Your task to perform on an android device: toggle notification dots Image 0: 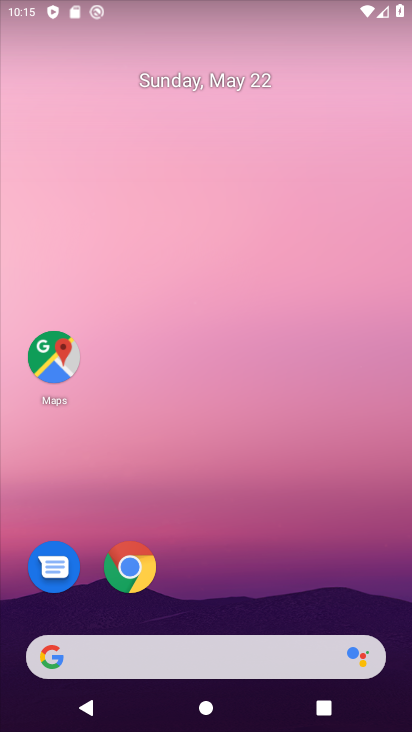
Step 0: drag from (399, 626) to (332, 48)
Your task to perform on an android device: toggle notification dots Image 1: 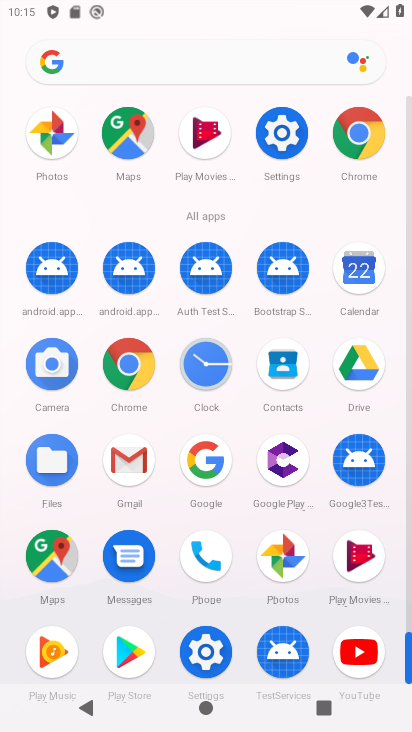
Step 1: click (204, 651)
Your task to perform on an android device: toggle notification dots Image 2: 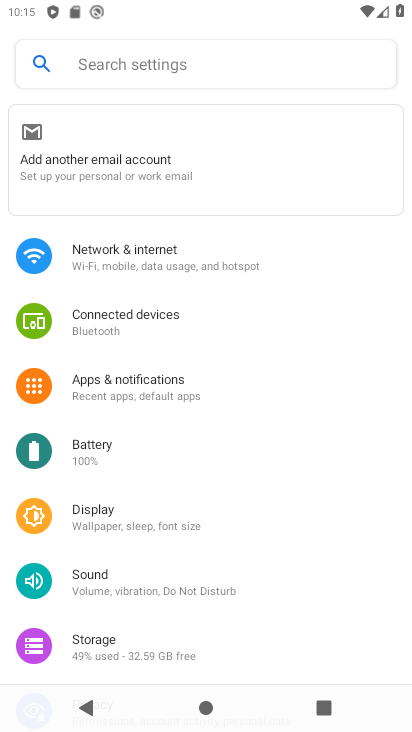
Step 2: click (132, 379)
Your task to perform on an android device: toggle notification dots Image 3: 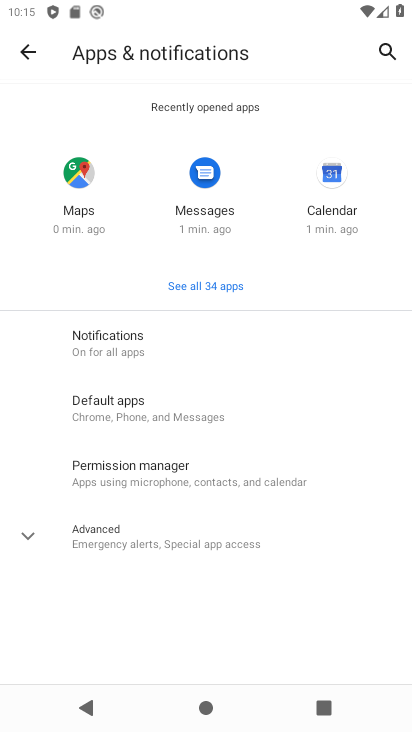
Step 3: click (28, 539)
Your task to perform on an android device: toggle notification dots Image 4: 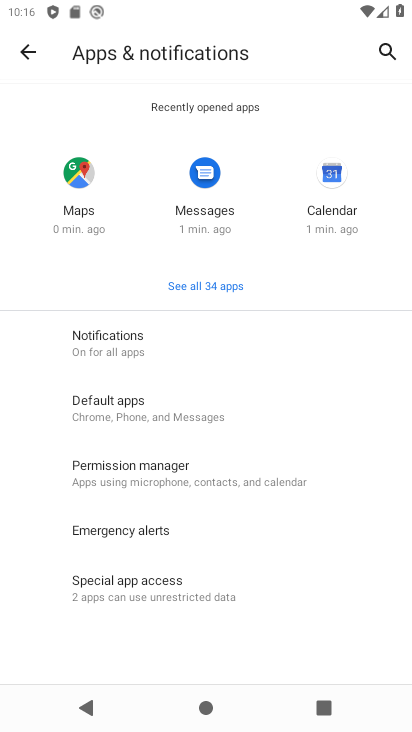
Step 4: click (117, 325)
Your task to perform on an android device: toggle notification dots Image 5: 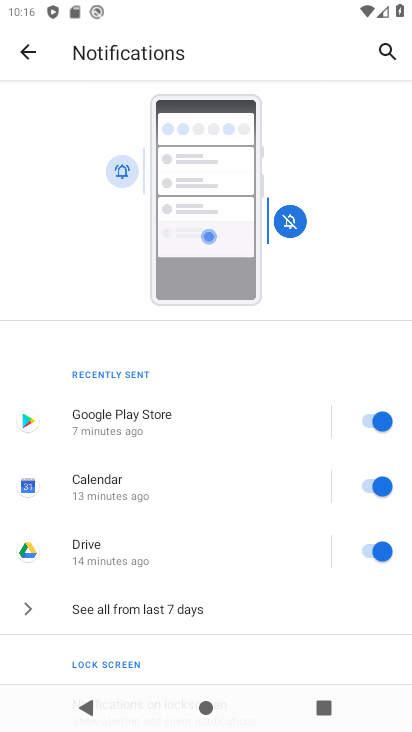
Step 5: drag from (287, 614) to (328, 161)
Your task to perform on an android device: toggle notification dots Image 6: 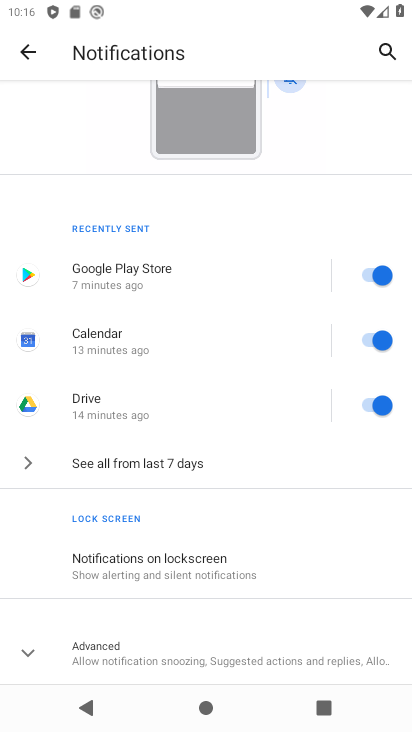
Step 6: drag from (333, 626) to (263, 203)
Your task to perform on an android device: toggle notification dots Image 7: 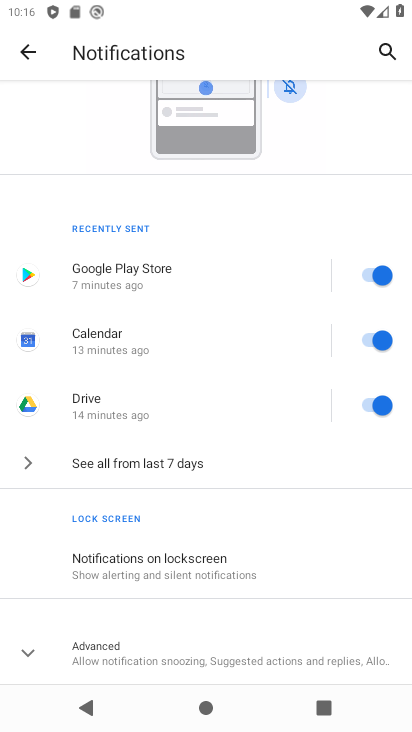
Step 7: click (25, 651)
Your task to perform on an android device: toggle notification dots Image 8: 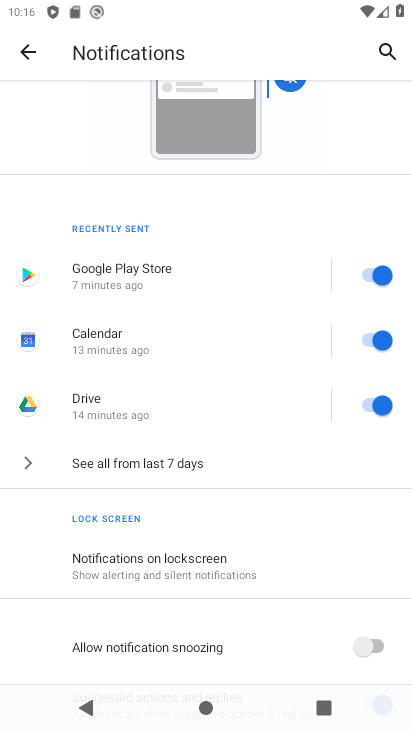
Step 8: drag from (288, 638) to (309, 118)
Your task to perform on an android device: toggle notification dots Image 9: 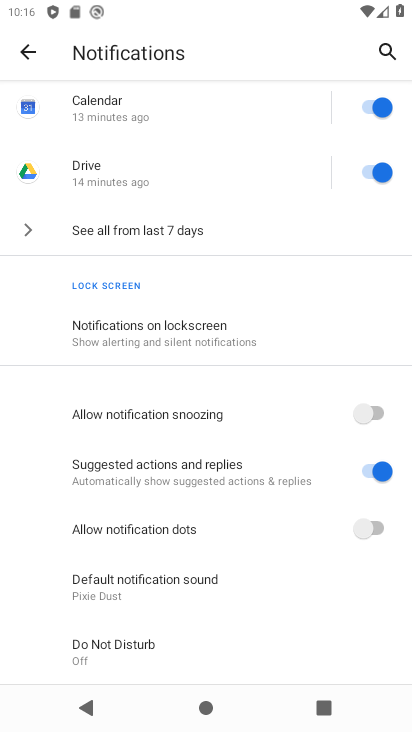
Step 9: click (377, 525)
Your task to perform on an android device: toggle notification dots Image 10: 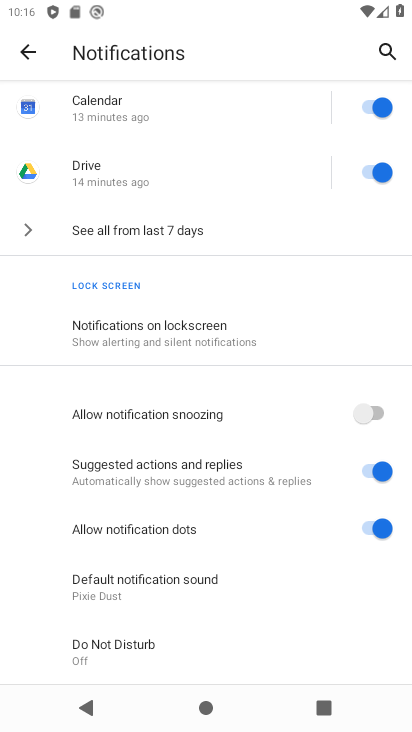
Step 10: task complete